Your task to perform on an android device: Open sound settings Image 0: 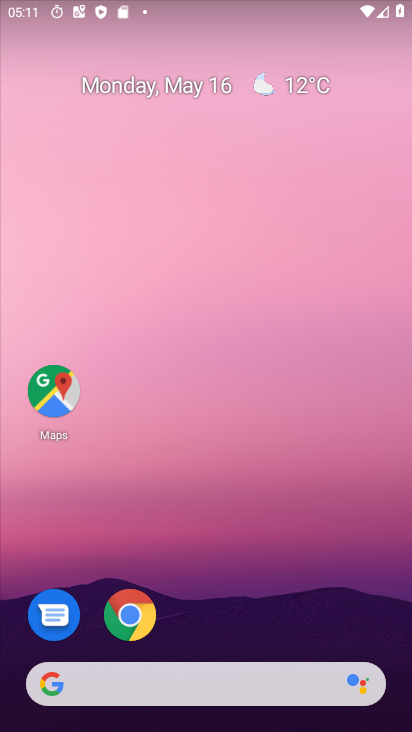
Step 0: drag from (323, 686) to (248, 86)
Your task to perform on an android device: Open sound settings Image 1: 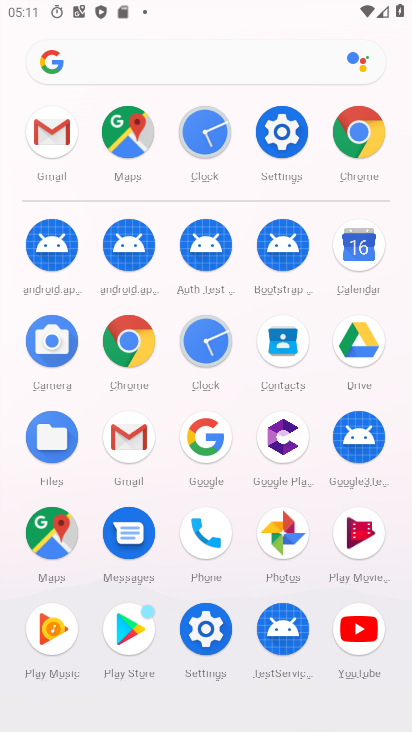
Step 1: click (215, 635)
Your task to perform on an android device: Open sound settings Image 2: 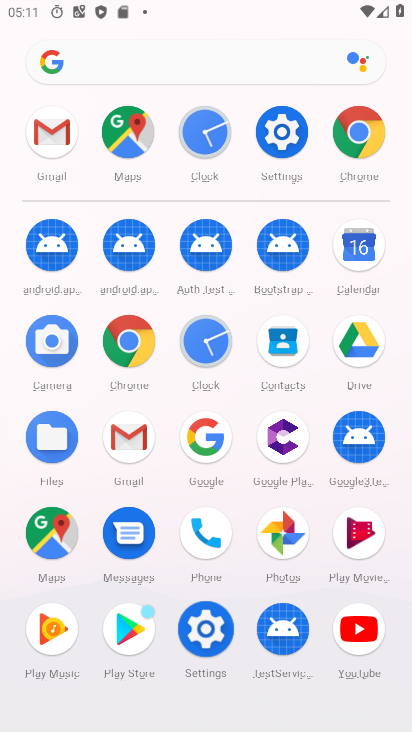
Step 2: click (215, 635)
Your task to perform on an android device: Open sound settings Image 3: 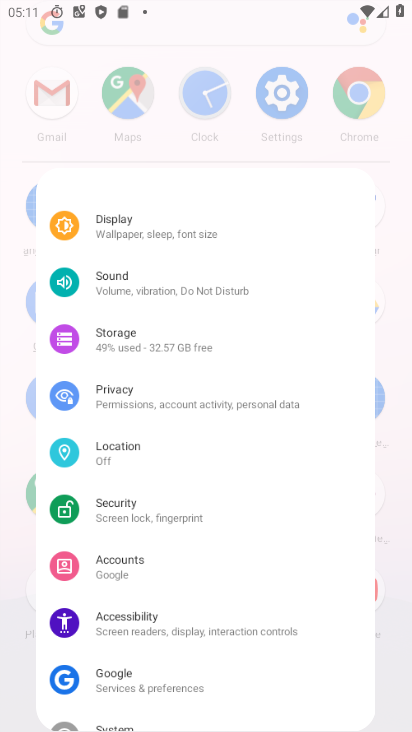
Step 3: click (215, 635)
Your task to perform on an android device: Open sound settings Image 4: 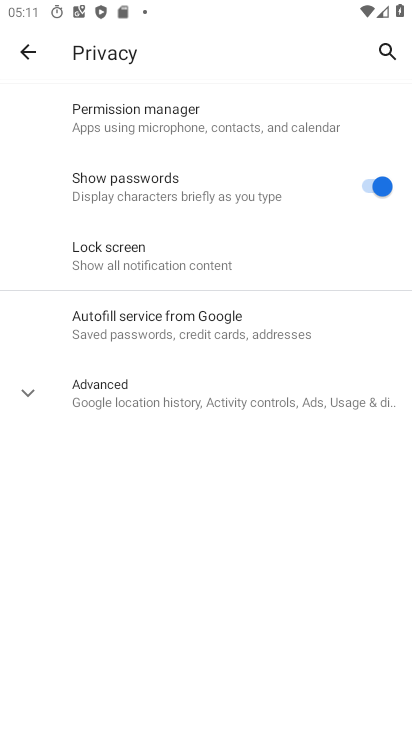
Step 4: click (13, 53)
Your task to perform on an android device: Open sound settings Image 5: 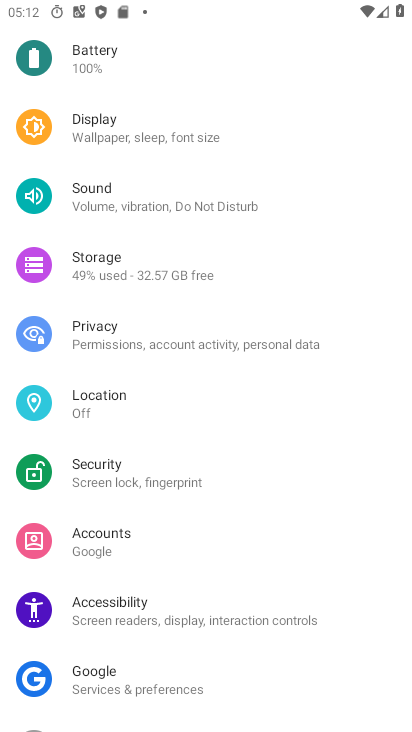
Step 5: click (110, 189)
Your task to perform on an android device: Open sound settings Image 6: 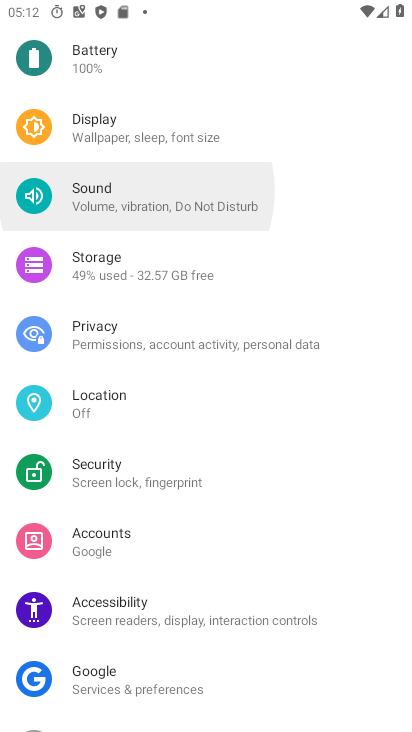
Step 6: click (108, 191)
Your task to perform on an android device: Open sound settings Image 7: 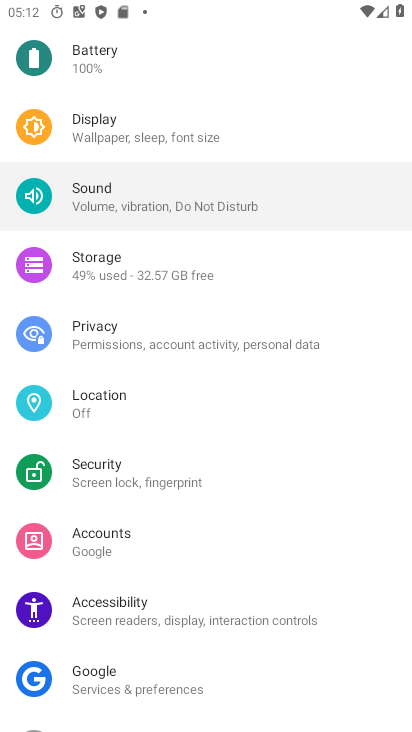
Step 7: click (108, 191)
Your task to perform on an android device: Open sound settings Image 8: 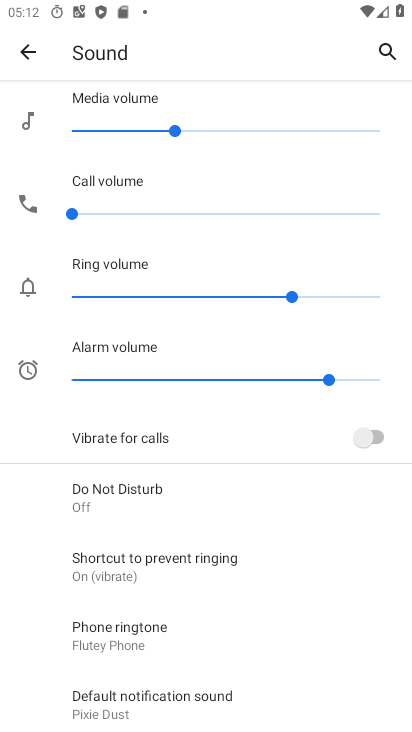
Step 8: task complete